Your task to perform on an android device: Search for Mexican restaurants on Maps Image 0: 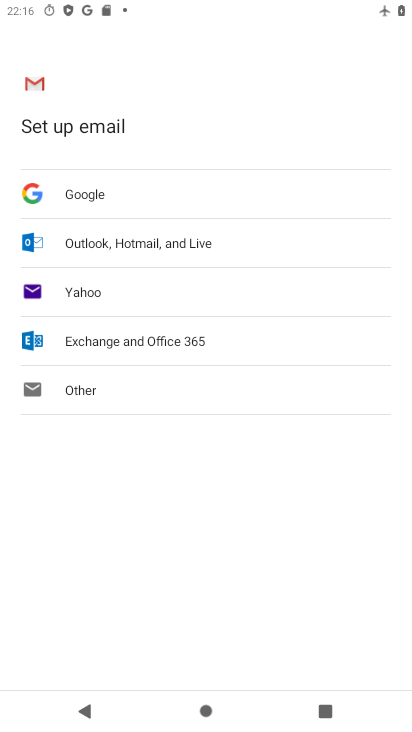
Step 0: press home button
Your task to perform on an android device: Search for Mexican restaurants on Maps Image 1: 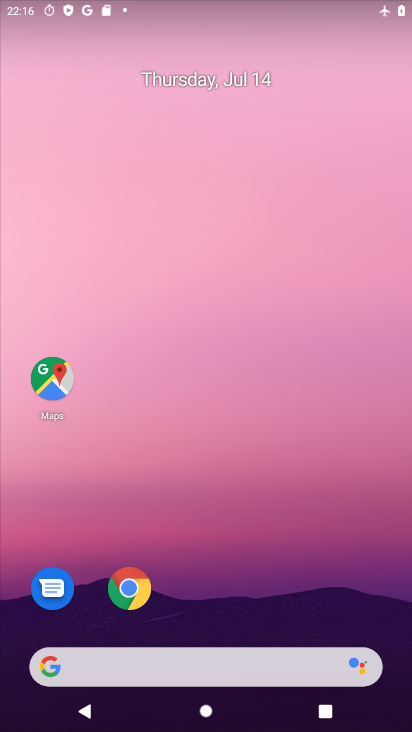
Step 1: click (48, 382)
Your task to perform on an android device: Search for Mexican restaurants on Maps Image 2: 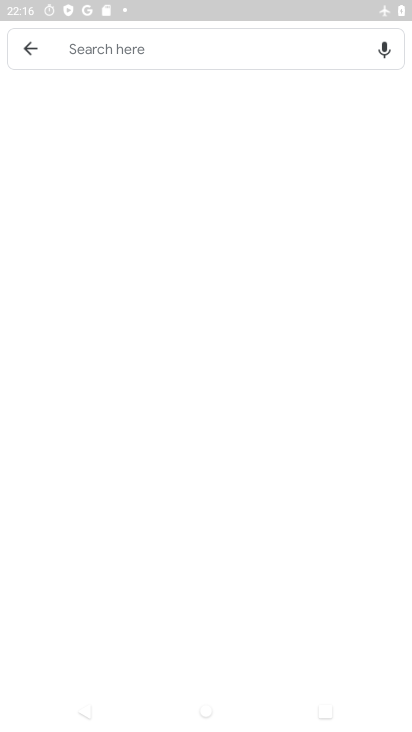
Step 2: click (200, 54)
Your task to perform on an android device: Search for Mexican restaurants on Maps Image 3: 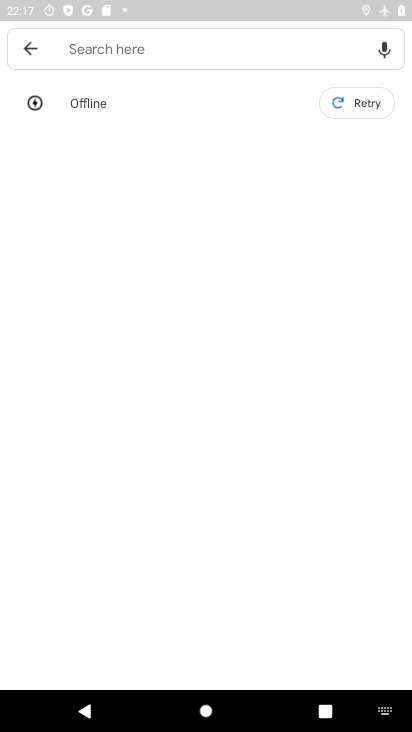
Step 3: press home button
Your task to perform on an android device: Search for Mexican restaurants on Maps Image 4: 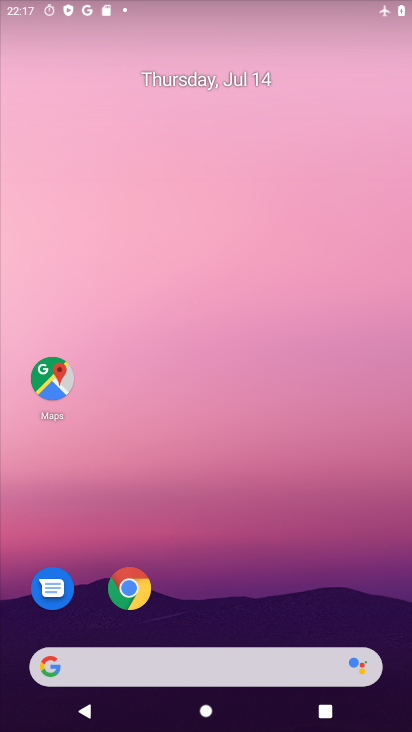
Step 4: drag from (177, 564) to (236, 99)
Your task to perform on an android device: Search for Mexican restaurants on Maps Image 5: 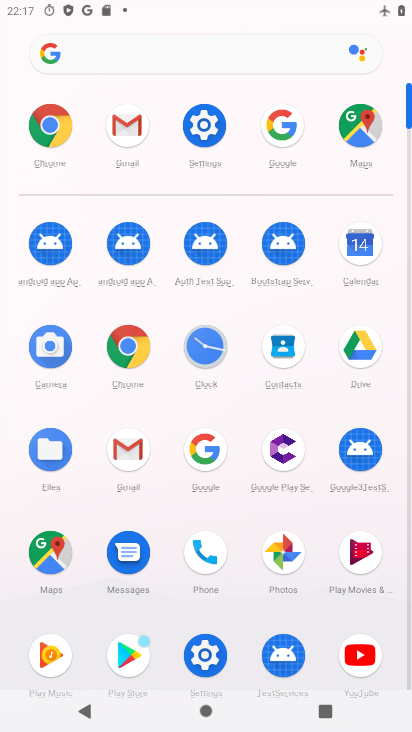
Step 5: click (212, 136)
Your task to perform on an android device: Search for Mexican restaurants on Maps Image 6: 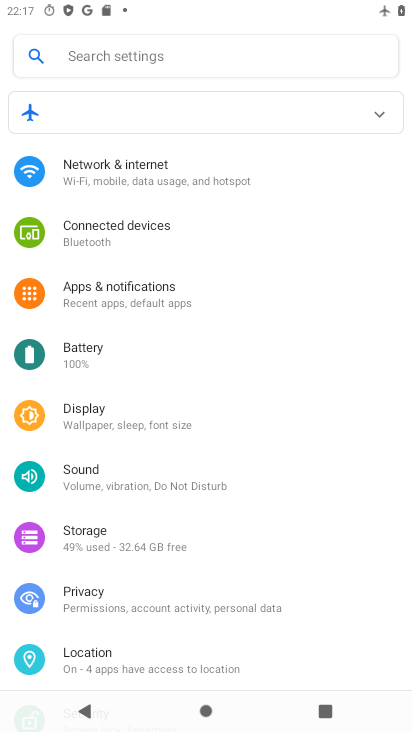
Step 6: click (172, 184)
Your task to perform on an android device: Search for Mexican restaurants on Maps Image 7: 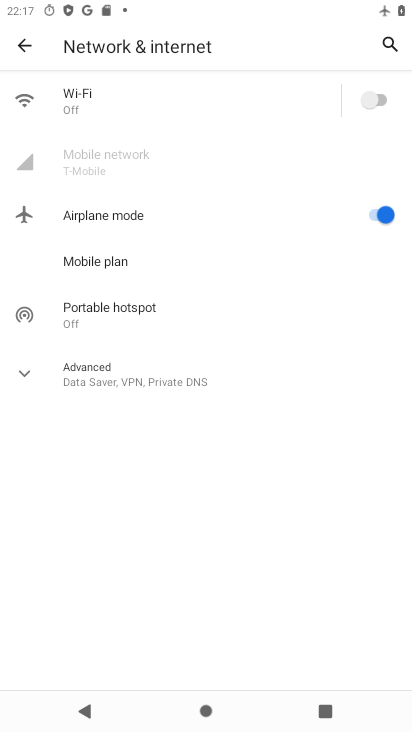
Step 7: click (376, 215)
Your task to perform on an android device: Search for Mexican restaurants on Maps Image 8: 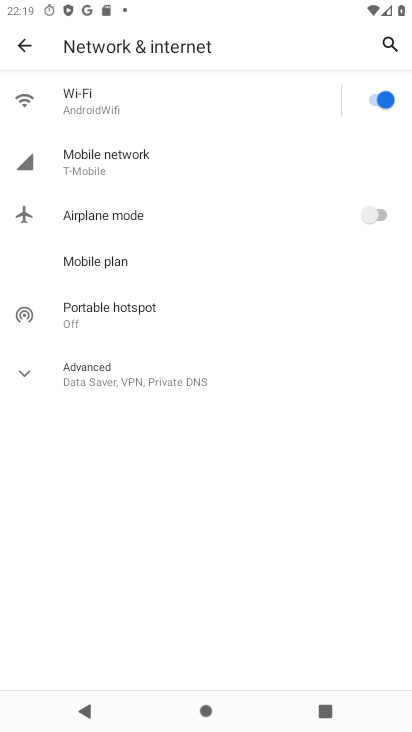
Step 8: task complete